Your task to perform on an android device: Open the calendar and show me this week's events? Image 0: 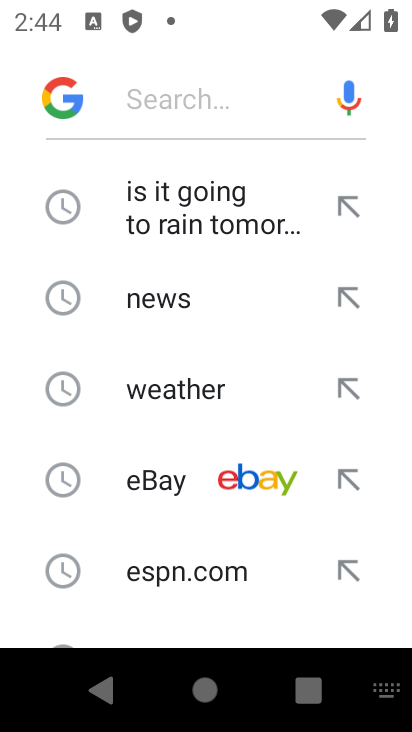
Step 0: press home button
Your task to perform on an android device: Open the calendar and show me this week's events? Image 1: 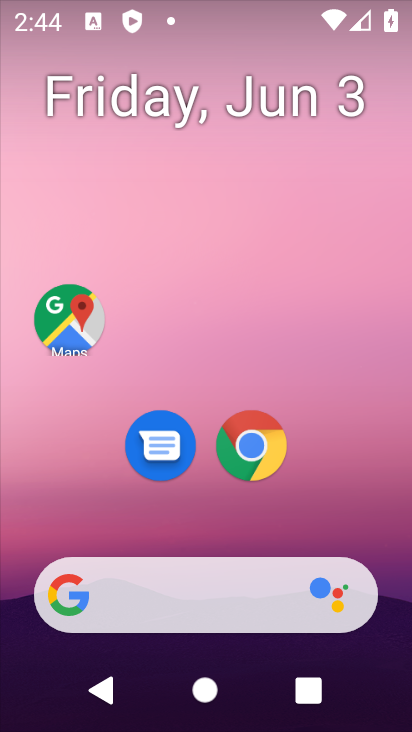
Step 1: click (186, 125)
Your task to perform on an android device: Open the calendar and show me this week's events? Image 2: 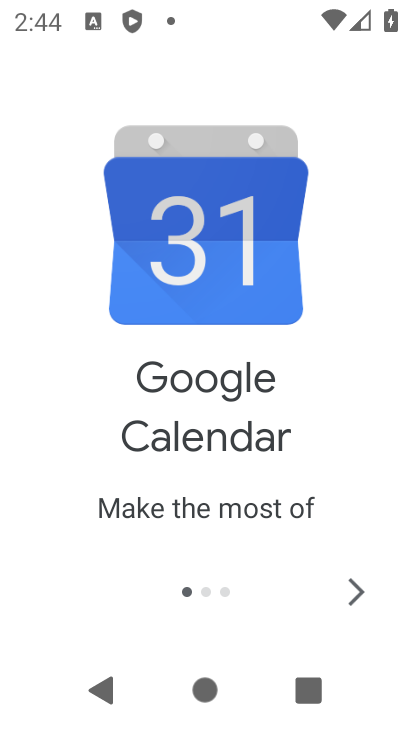
Step 2: click (337, 599)
Your task to perform on an android device: Open the calendar and show me this week's events? Image 3: 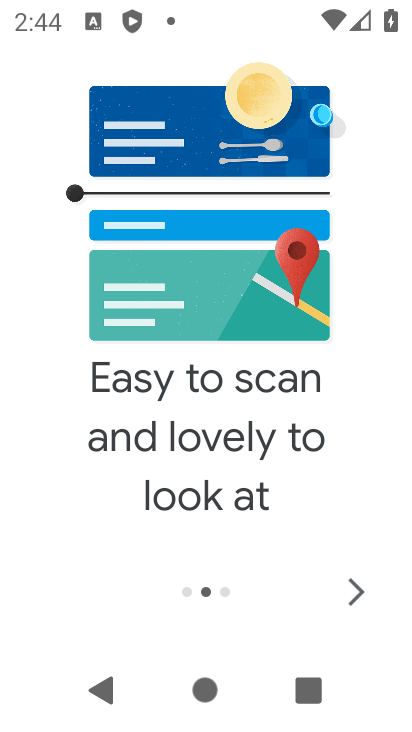
Step 3: click (337, 599)
Your task to perform on an android device: Open the calendar and show me this week's events? Image 4: 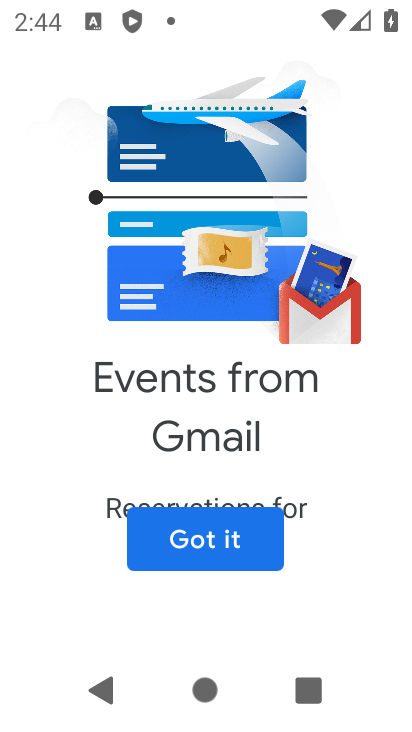
Step 4: click (261, 560)
Your task to perform on an android device: Open the calendar and show me this week's events? Image 5: 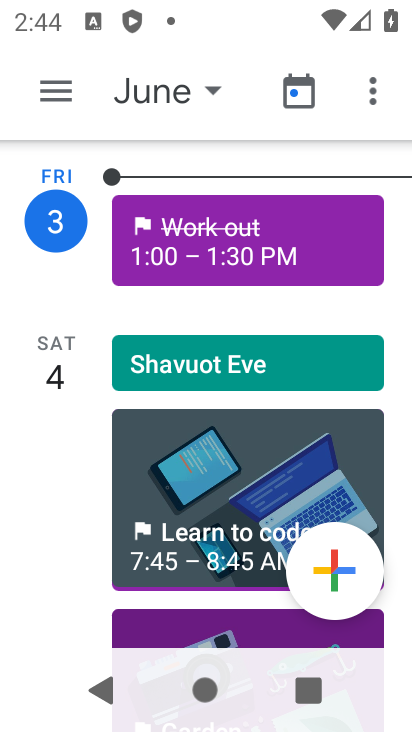
Step 5: click (170, 107)
Your task to perform on an android device: Open the calendar and show me this week's events? Image 6: 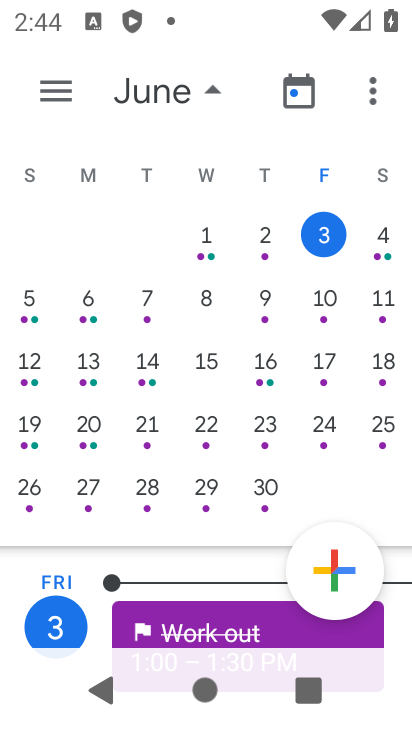
Step 6: click (217, 610)
Your task to perform on an android device: Open the calendar and show me this week's events? Image 7: 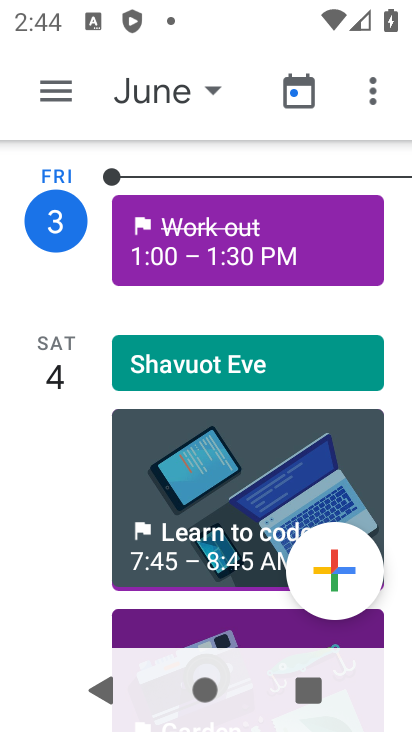
Step 7: task complete